Your task to perform on an android device: install app "Microsoft Excel" Image 0: 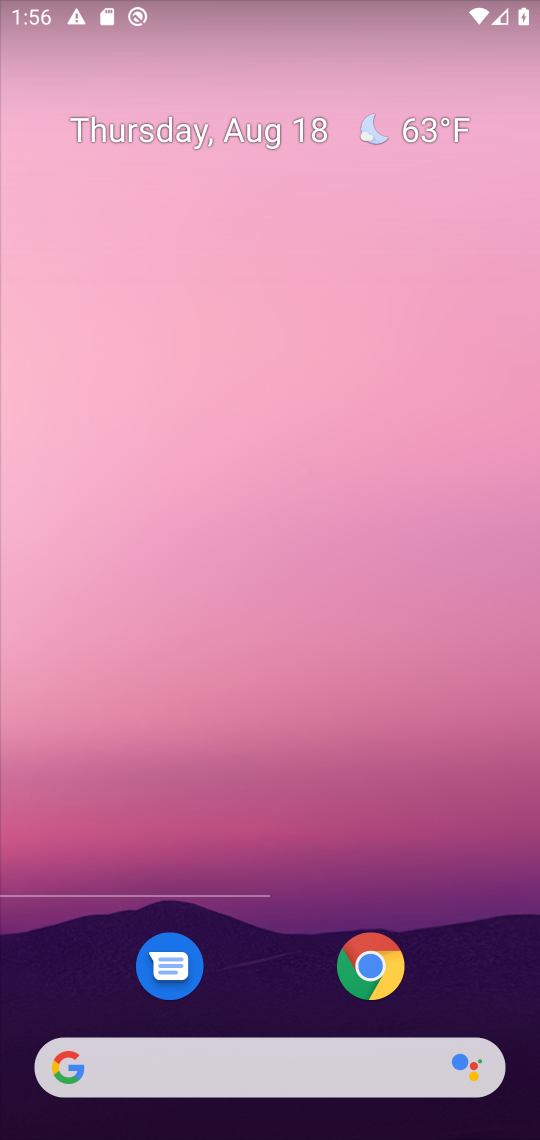
Step 0: press home button
Your task to perform on an android device: install app "Microsoft Excel" Image 1: 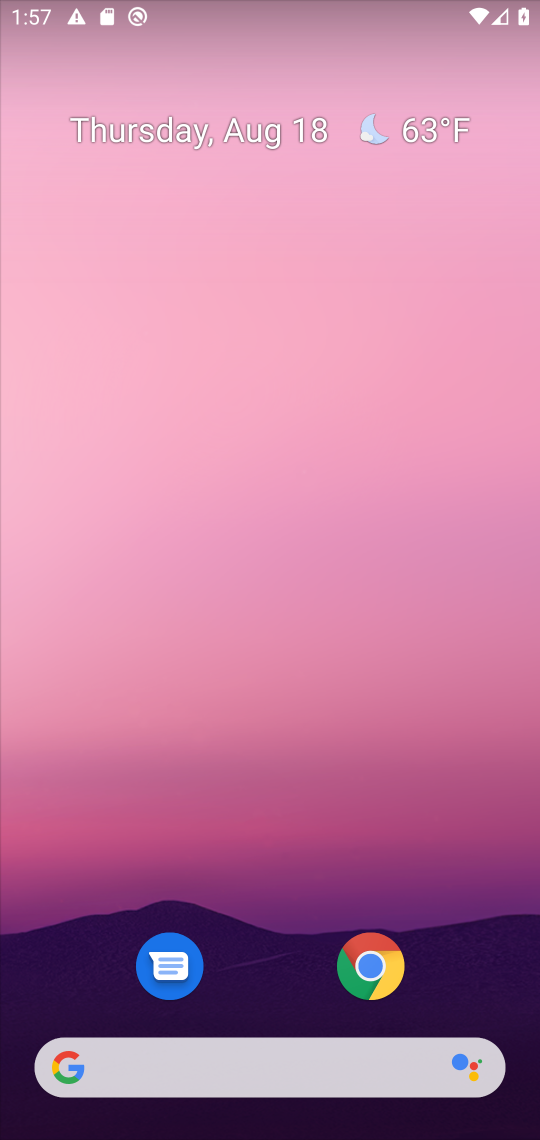
Step 1: drag from (271, 1015) to (395, 242)
Your task to perform on an android device: install app "Microsoft Excel" Image 2: 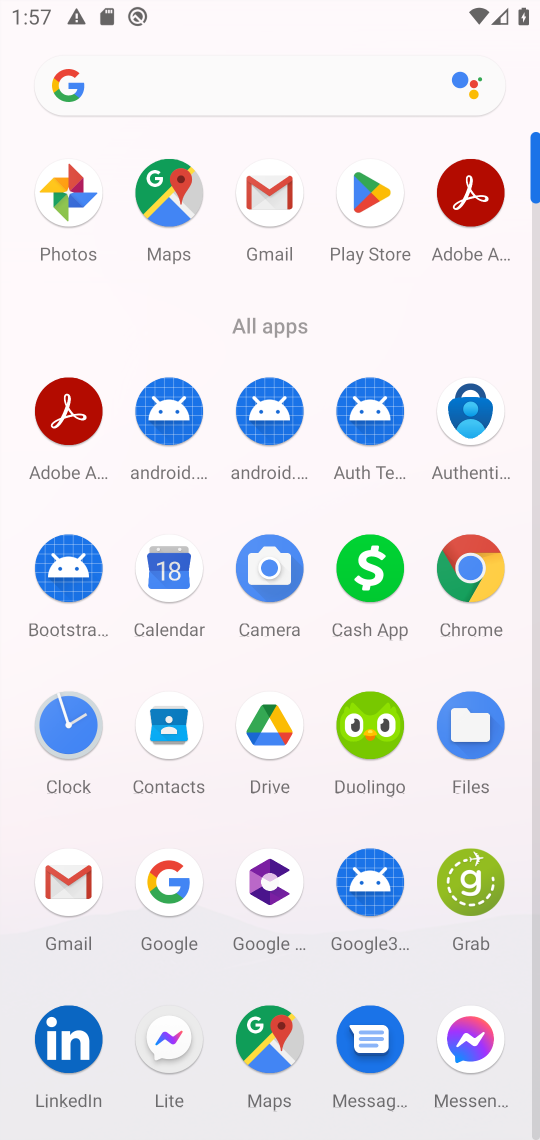
Step 2: click (361, 187)
Your task to perform on an android device: install app "Microsoft Excel" Image 3: 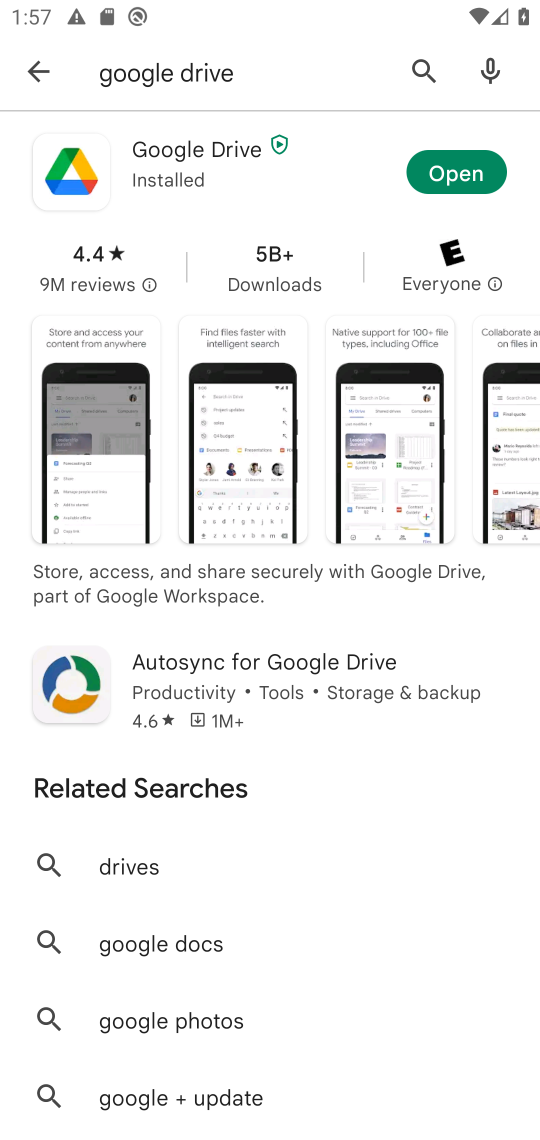
Step 3: click (421, 79)
Your task to perform on an android device: install app "Microsoft Excel" Image 4: 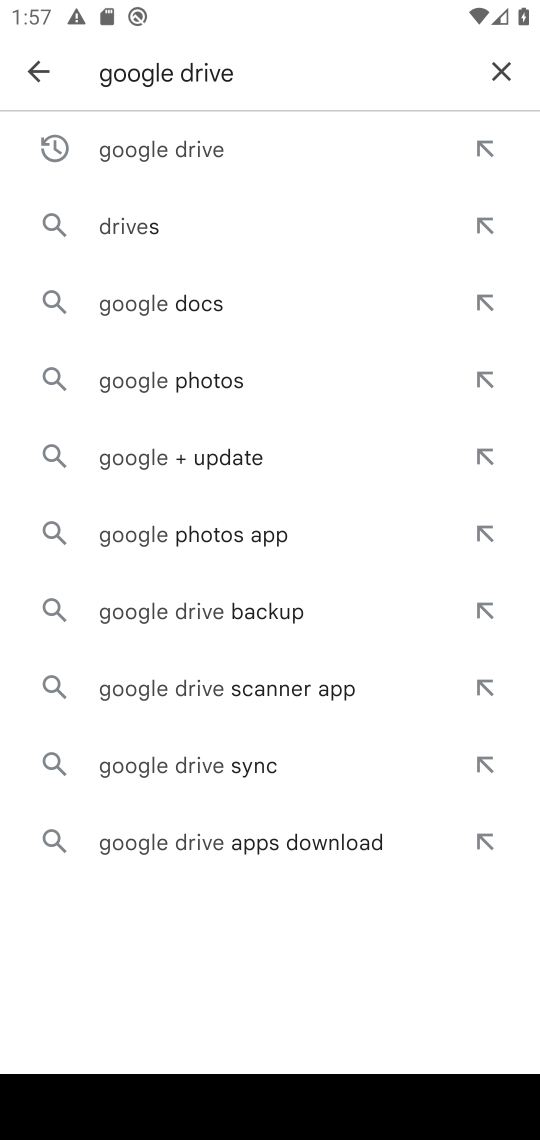
Step 4: click (496, 70)
Your task to perform on an android device: install app "Microsoft Excel" Image 5: 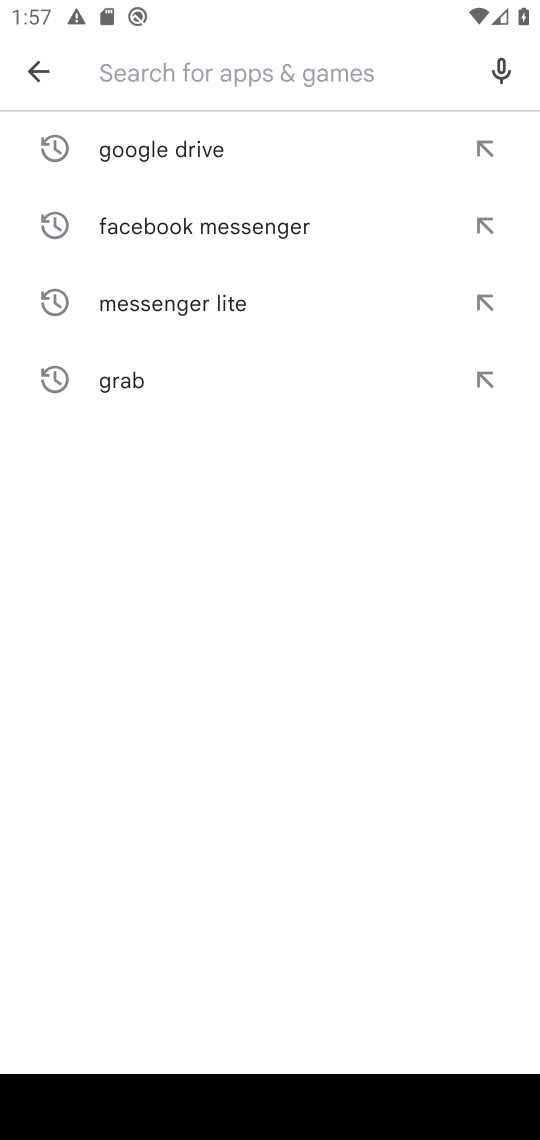
Step 5: type "Microsoft Excel"
Your task to perform on an android device: install app "Microsoft Excel" Image 6: 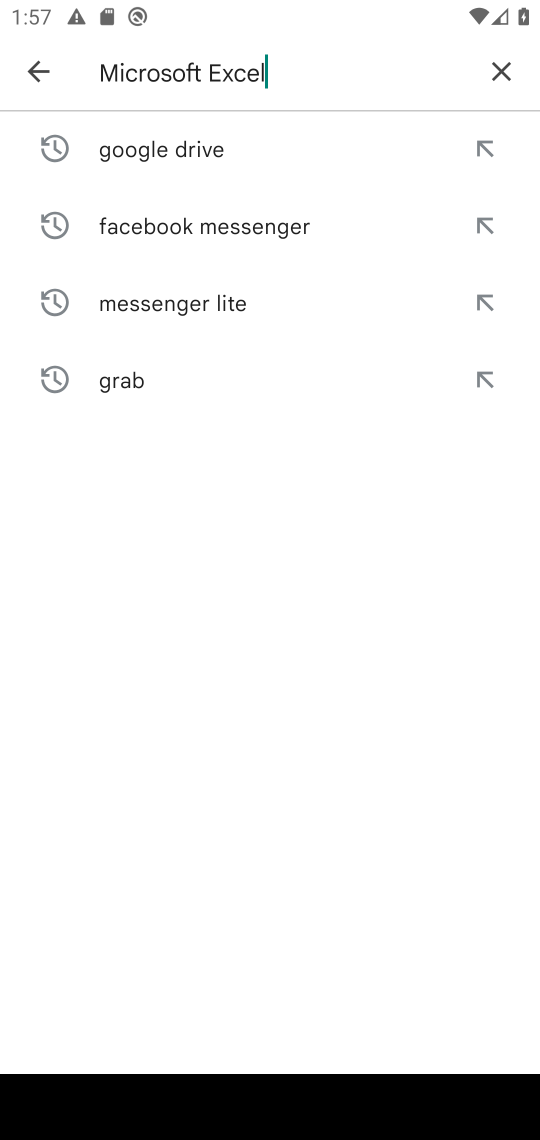
Step 6: type ""
Your task to perform on an android device: install app "Microsoft Excel" Image 7: 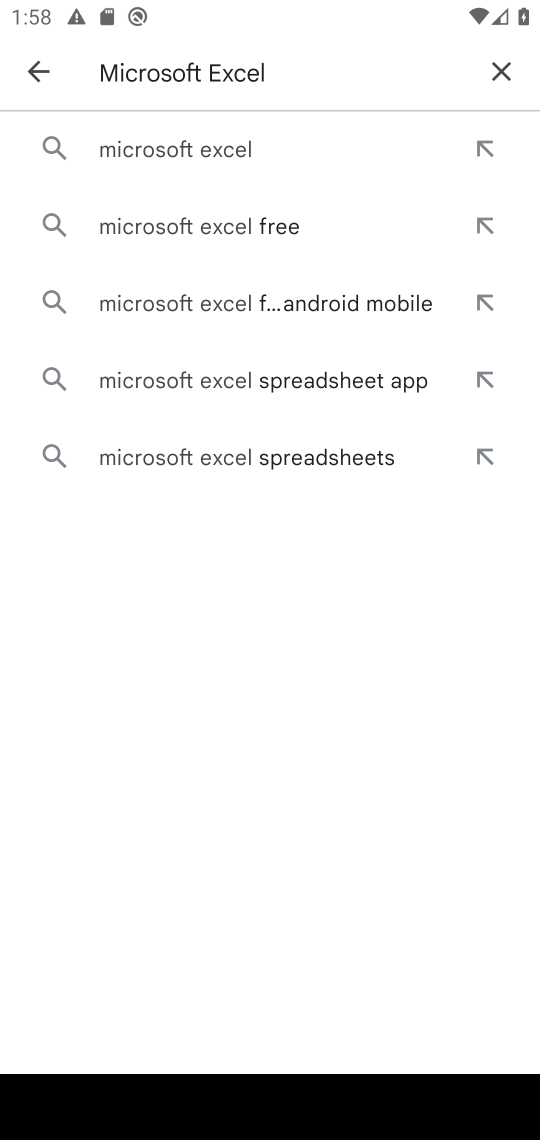
Step 7: click (177, 159)
Your task to perform on an android device: install app "Microsoft Excel" Image 8: 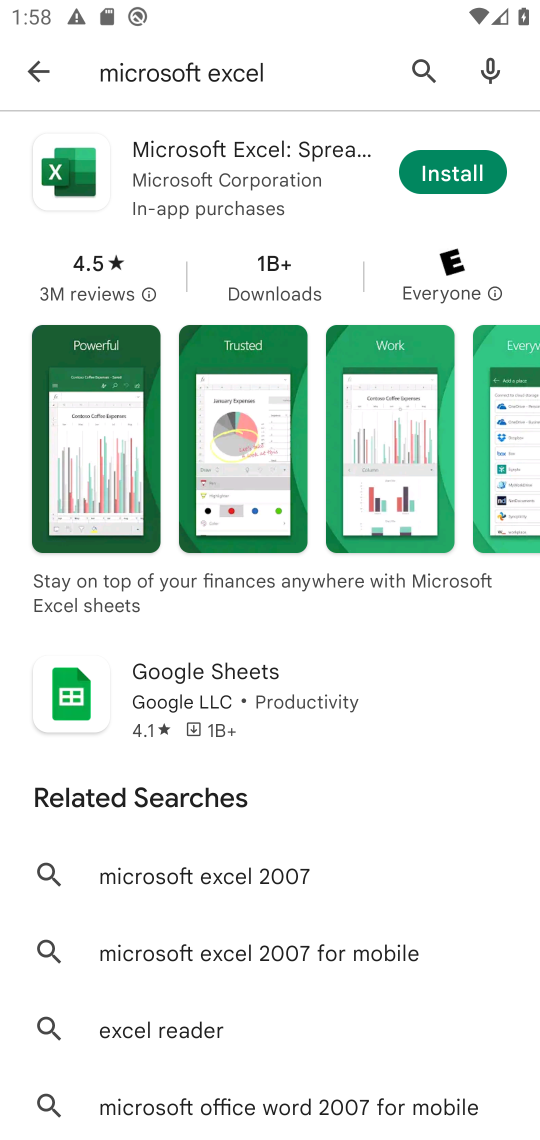
Step 8: click (456, 165)
Your task to perform on an android device: install app "Microsoft Excel" Image 9: 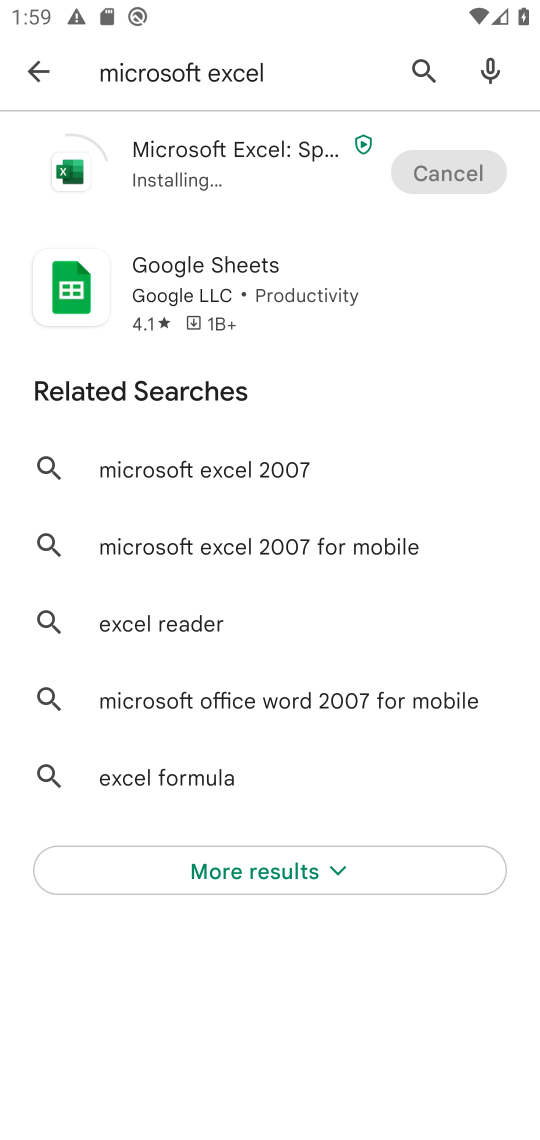
Step 9: click (244, 152)
Your task to perform on an android device: install app "Microsoft Excel" Image 10: 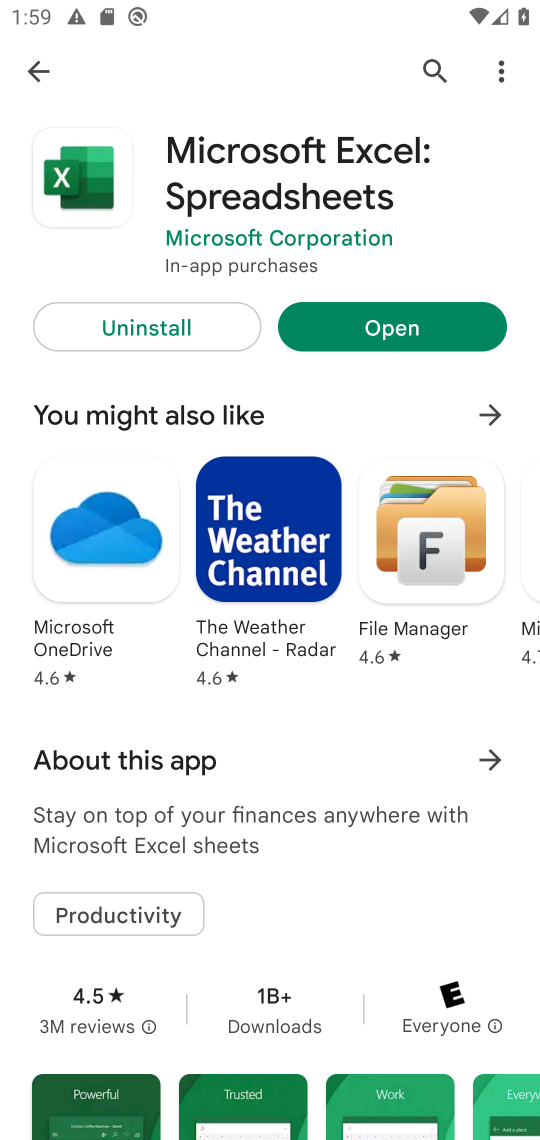
Step 10: click (389, 324)
Your task to perform on an android device: install app "Microsoft Excel" Image 11: 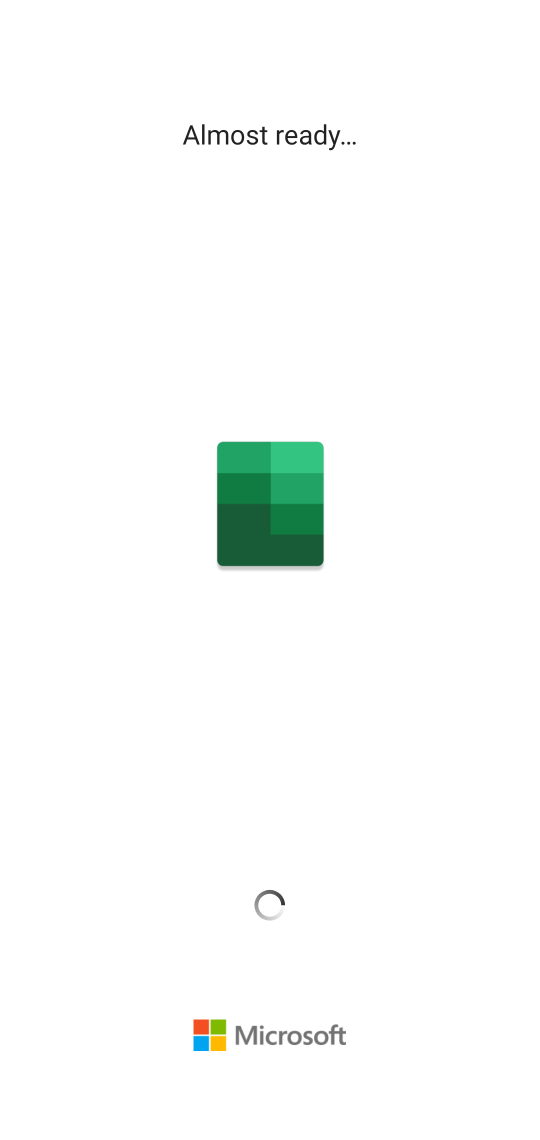
Step 11: task complete